Your task to perform on an android device: change timer sound Image 0: 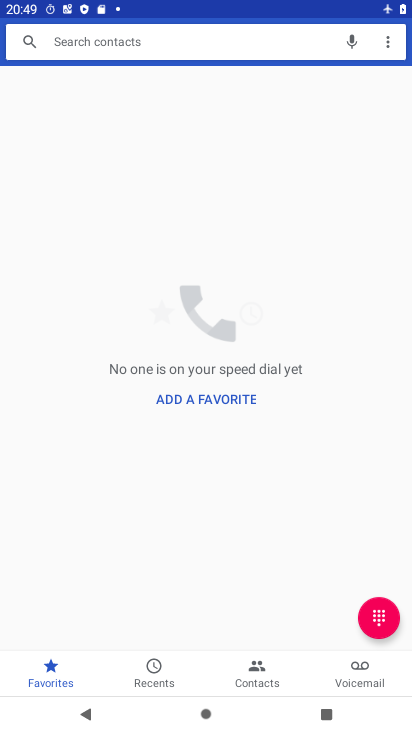
Step 0: press home button
Your task to perform on an android device: change timer sound Image 1: 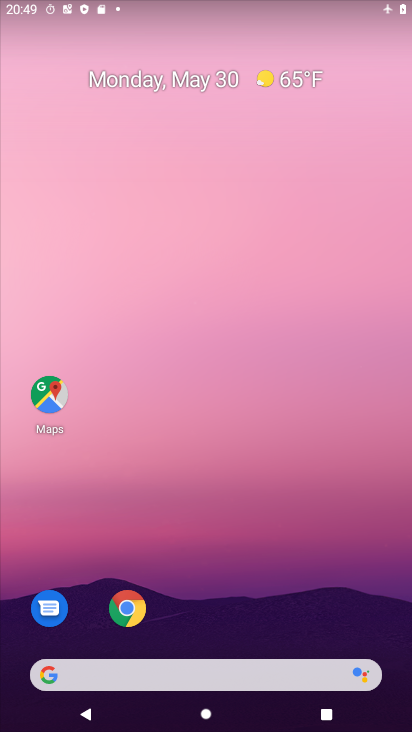
Step 1: drag from (204, 641) to (213, 299)
Your task to perform on an android device: change timer sound Image 2: 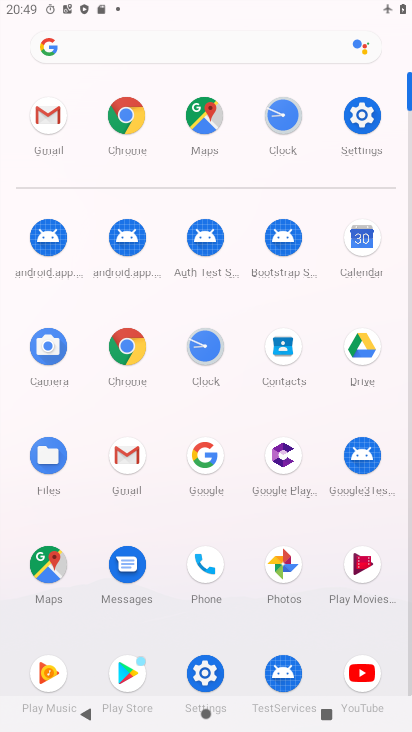
Step 2: click (283, 119)
Your task to perform on an android device: change timer sound Image 3: 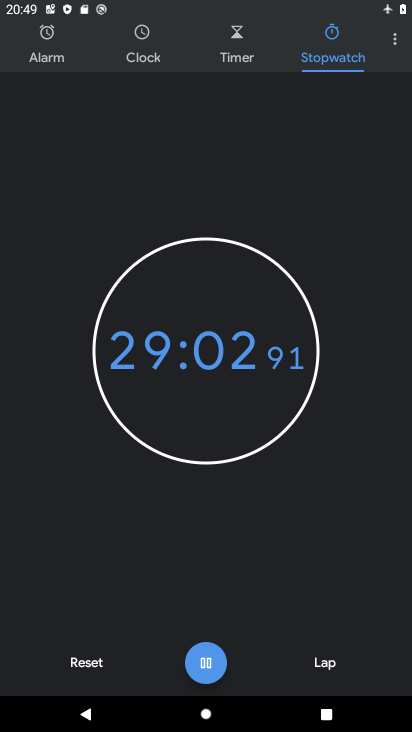
Step 3: click (394, 39)
Your task to perform on an android device: change timer sound Image 4: 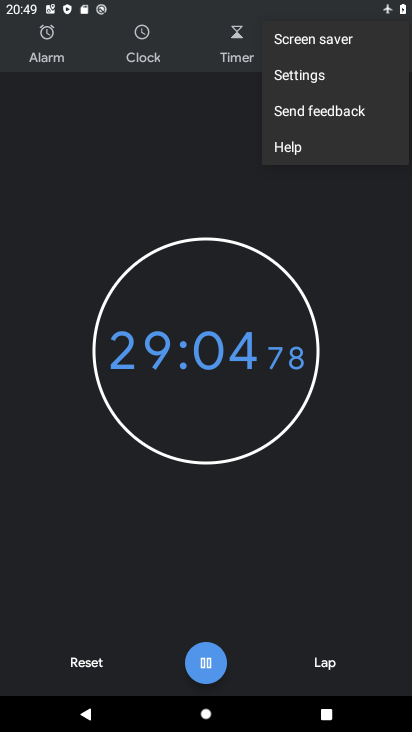
Step 4: click (320, 73)
Your task to perform on an android device: change timer sound Image 5: 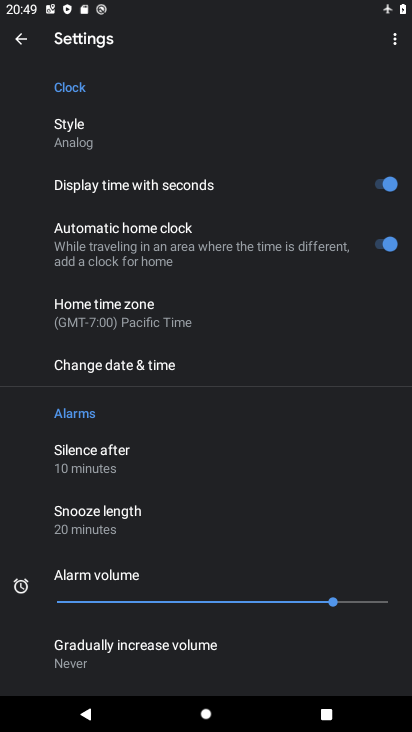
Step 5: drag from (197, 549) to (183, 227)
Your task to perform on an android device: change timer sound Image 6: 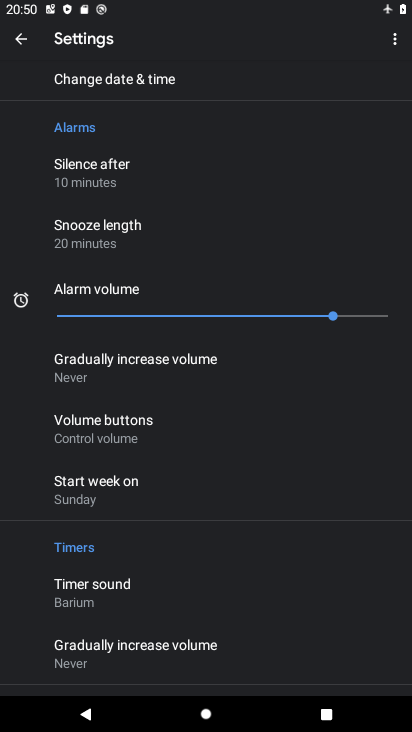
Step 6: drag from (217, 566) to (195, 477)
Your task to perform on an android device: change timer sound Image 7: 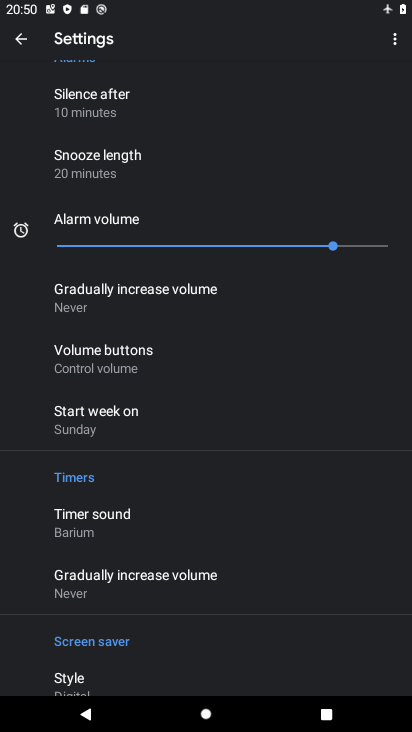
Step 7: click (161, 505)
Your task to perform on an android device: change timer sound Image 8: 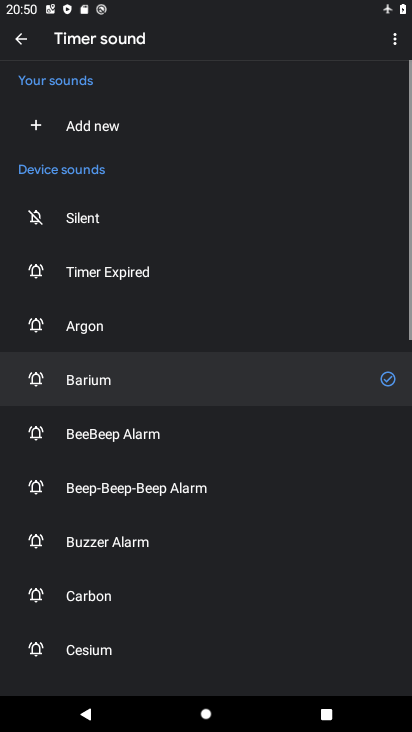
Step 8: click (150, 497)
Your task to perform on an android device: change timer sound Image 9: 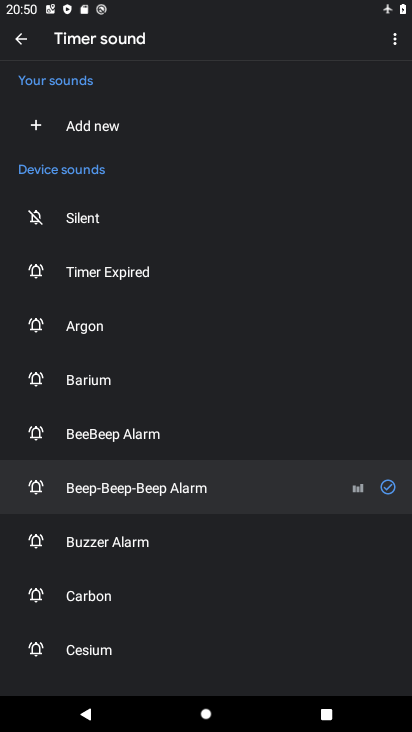
Step 9: task complete